Your task to perform on an android device: allow notifications from all sites in the chrome app Image 0: 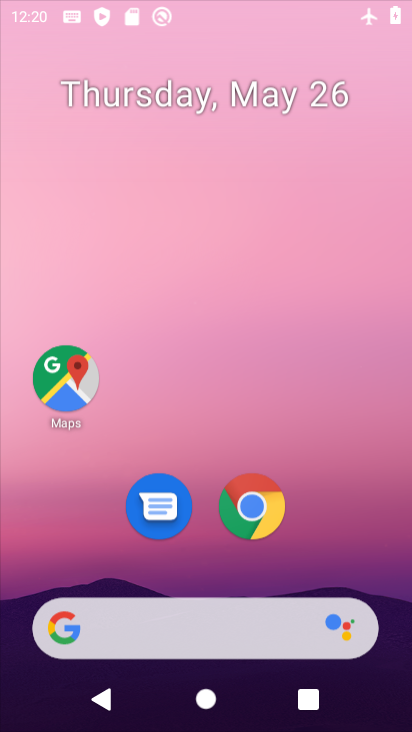
Step 0: click (36, 71)
Your task to perform on an android device: allow notifications from all sites in the chrome app Image 1: 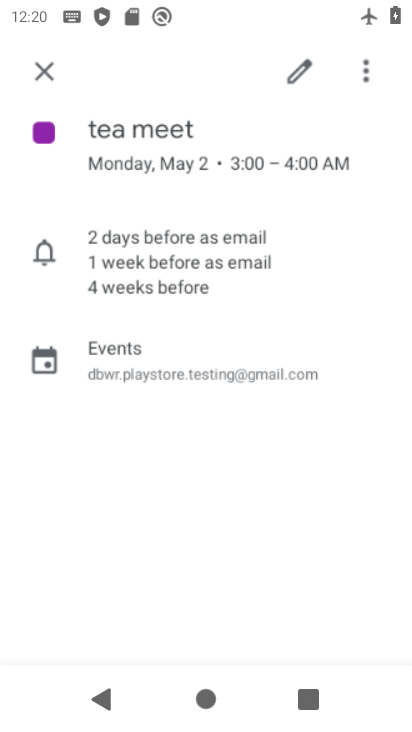
Step 1: drag from (222, 470) to (226, 145)
Your task to perform on an android device: allow notifications from all sites in the chrome app Image 2: 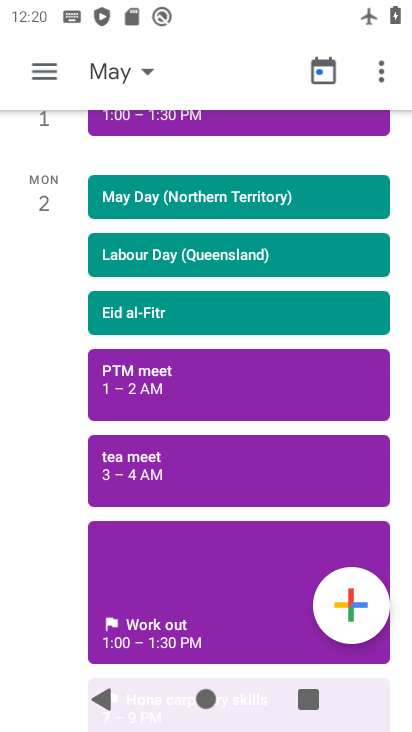
Step 2: press home button
Your task to perform on an android device: allow notifications from all sites in the chrome app Image 3: 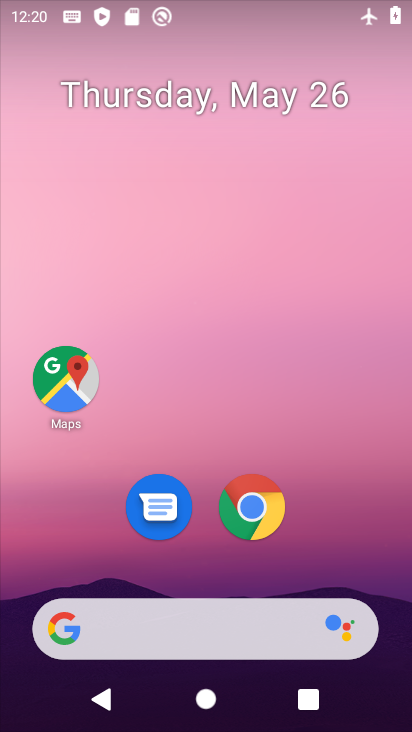
Step 3: click (238, 536)
Your task to perform on an android device: allow notifications from all sites in the chrome app Image 4: 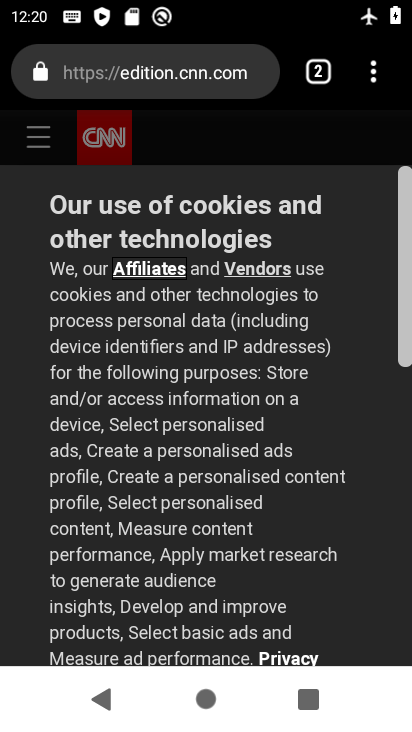
Step 4: click (375, 72)
Your task to perform on an android device: allow notifications from all sites in the chrome app Image 5: 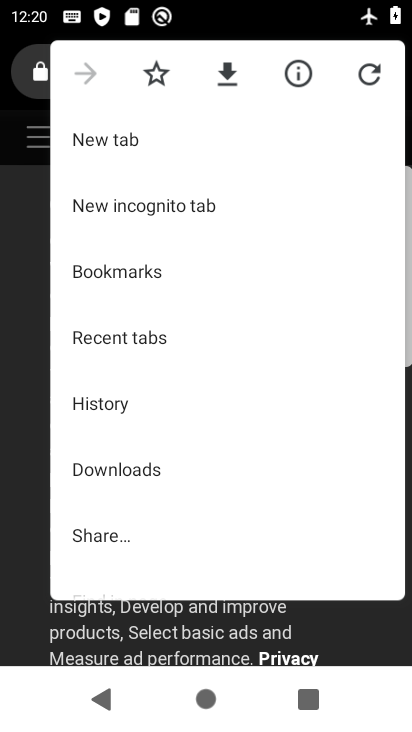
Step 5: drag from (214, 536) to (221, 182)
Your task to perform on an android device: allow notifications from all sites in the chrome app Image 6: 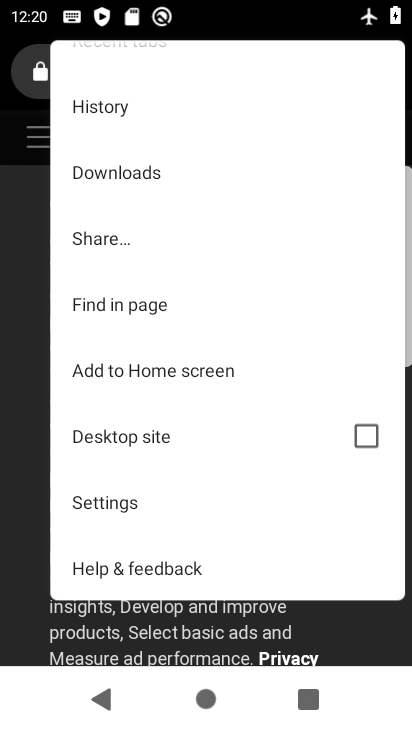
Step 6: click (148, 492)
Your task to perform on an android device: allow notifications from all sites in the chrome app Image 7: 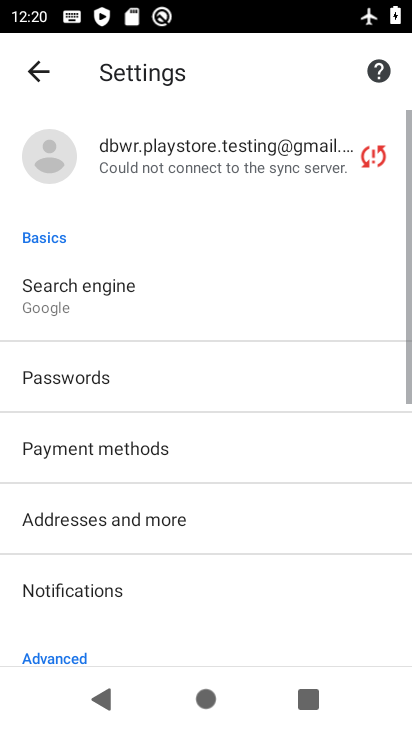
Step 7: drag from (148, 492) to (174, 156)
Your task to perform on an android device: allow notifications from all sites in the chrome app Image 8: 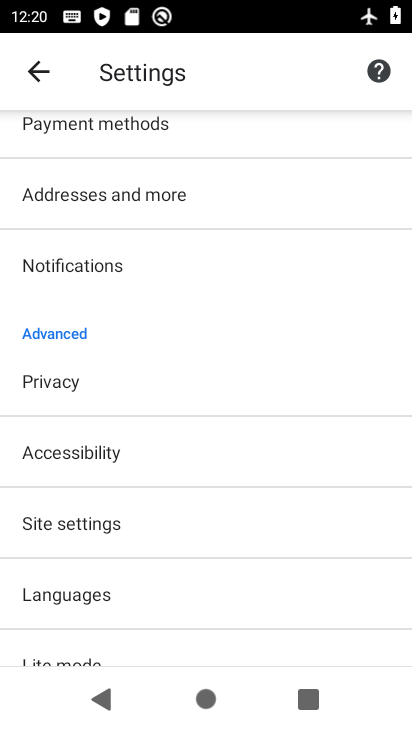
Step 8: click (141, 508)
Your task to perform on an android device: allow notifications from all sites in the chrome app Image 9: 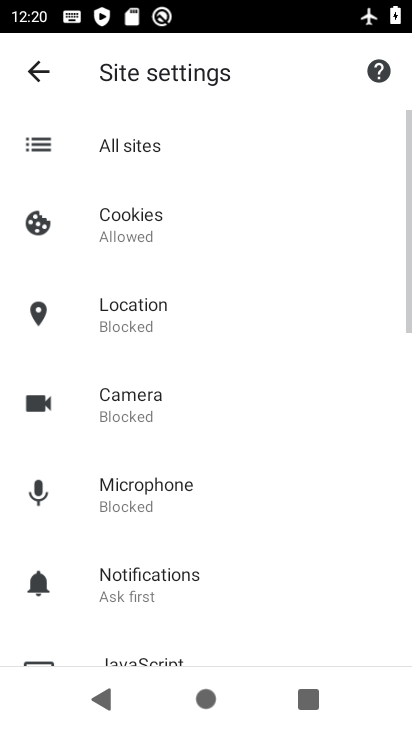
Step 9: click (161, 154)
Your task to perform on an android device: allow notifications from all sites in the chrome app Image 10: 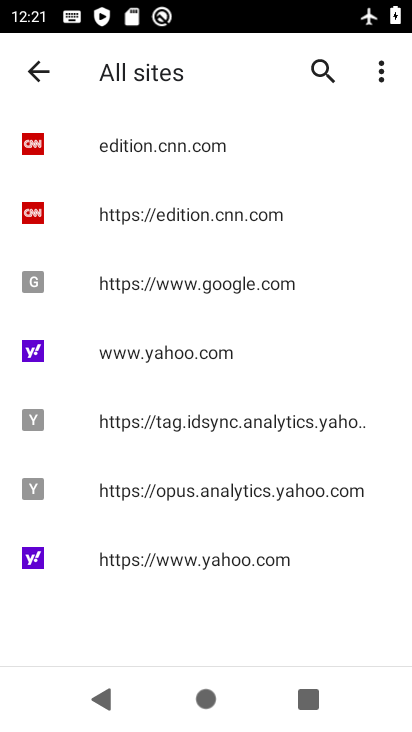
Step 10: click (214, 279)
Your task to perform on an android device: allow notifications from all sites in the chrome app Image 11: 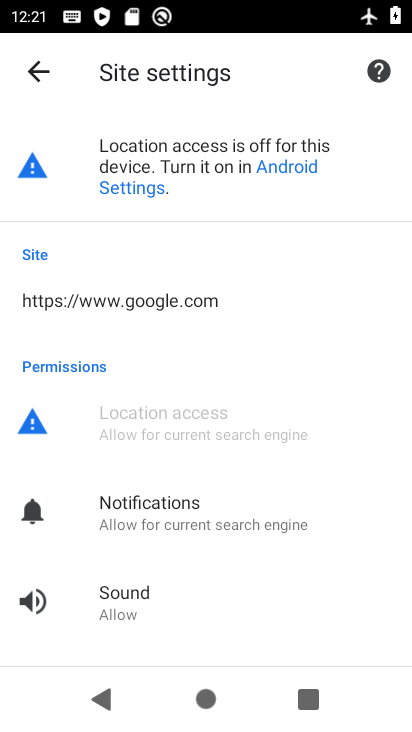
Step 11: click (226, 500)
Your task to perform on an android device: allow notifications from all sites in the chrome app Image 12: 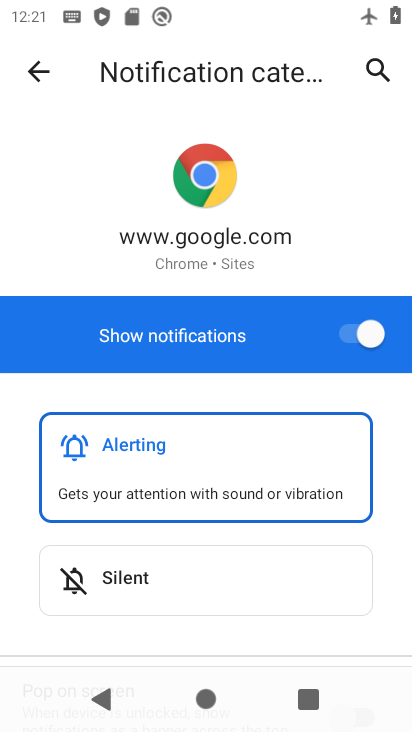
Step 12: task complete